Your task to perform on an android device: What is the news today? Image 0: 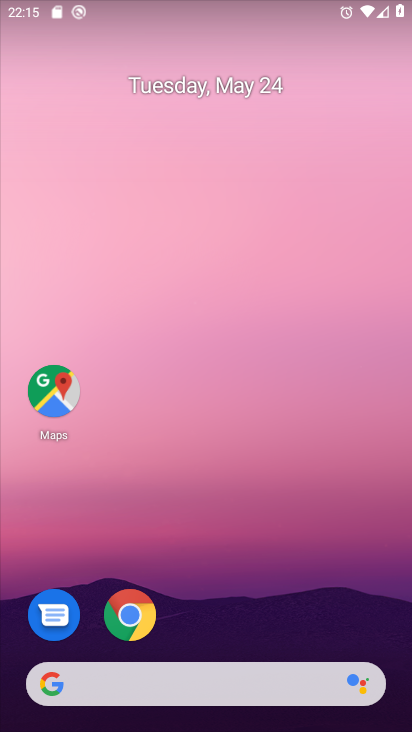
Step 0: drag from (235, 553) to (261, 136)
Your task to perform on an android device: What is the news today? Image 1: 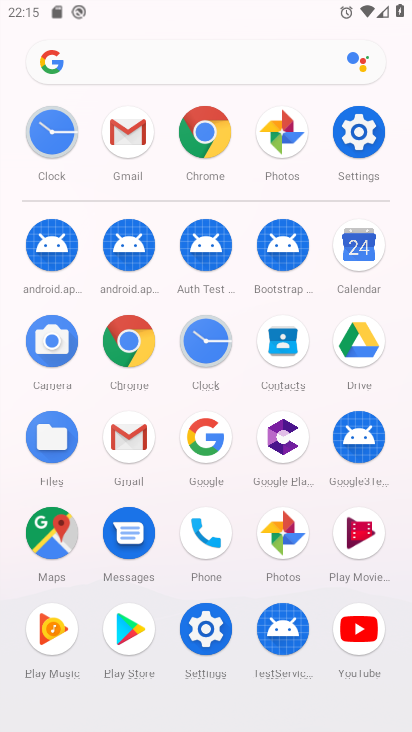
Step 1: click (138, 334)
Your task to perform on an android device: What is the news today? Image 2: 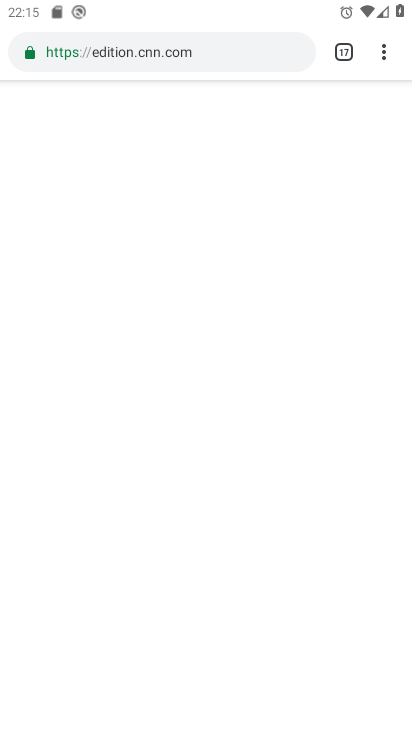
Step 2: click (382, 52)
Your task to perform on an android device: What is the news today? Image 3: 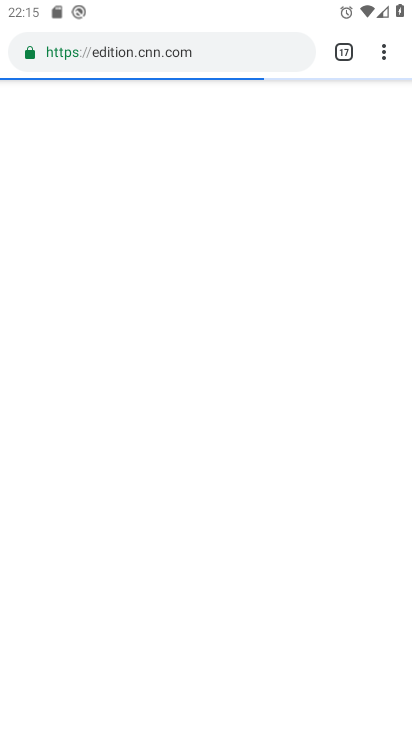
Step 3: click (383, 42)
Your task to perform on an android device: What is the news today? Image 4: 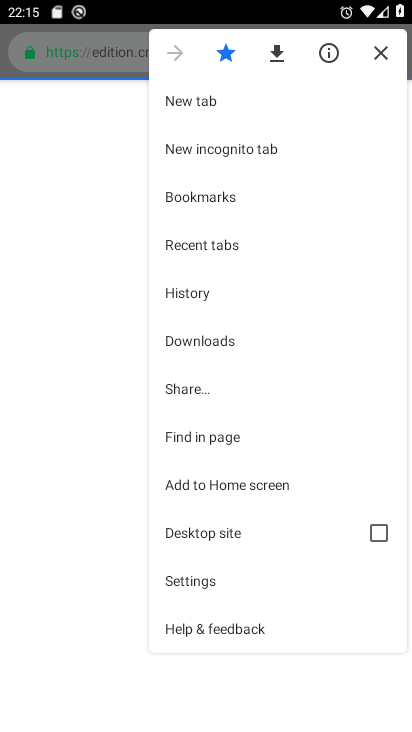
Step 4: click (192, 104)
Your task to perform on an android device: What is the news today? Image 5: 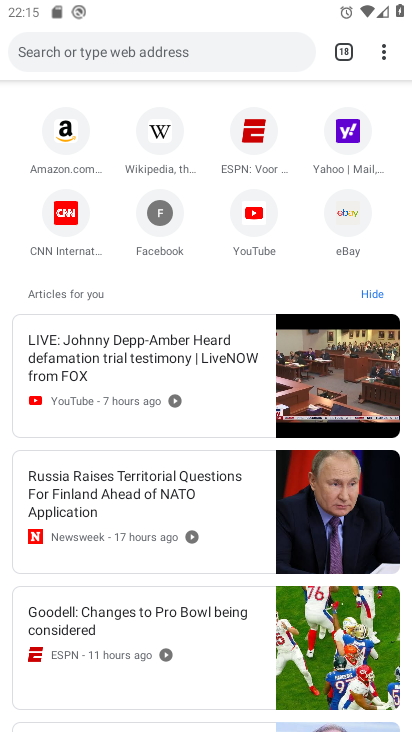
Step 5: click (133, 45)
Your task to perform on an android device: What is the news today? Image 6: 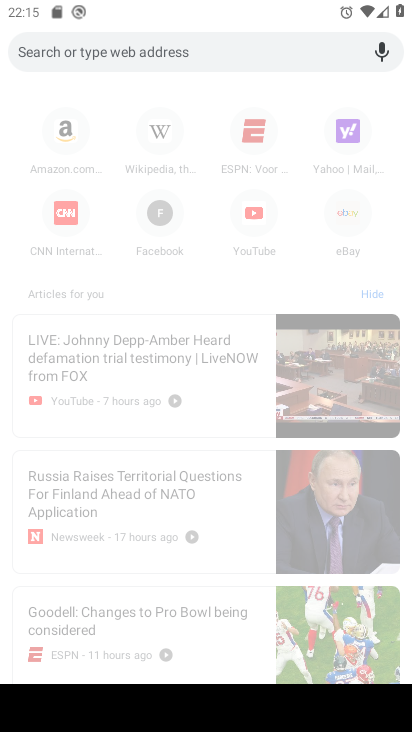
Step 6: type "What is the news today?"
Your task to perform on an android device: What is the news today? Image 7: 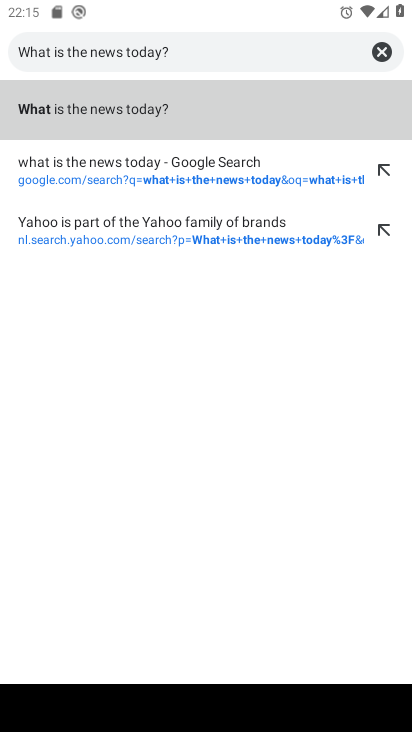
Step 7: click (156, 110)
Your task to perform on an android device: What is the news today? Image 8: 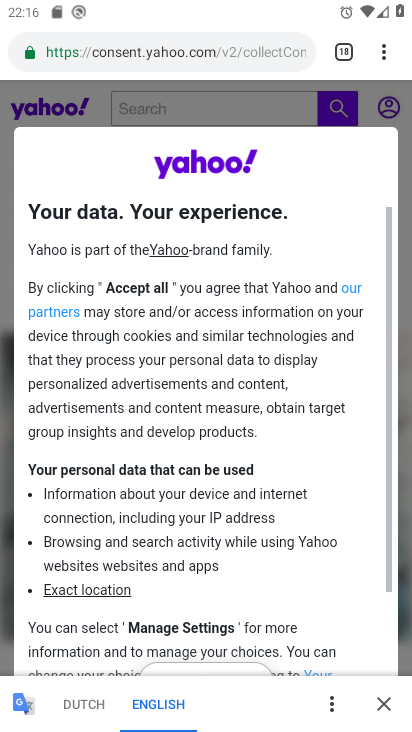
Step 8: task complete